Your task to perform on an android device: see sites visited before in the chrome app Image 0: 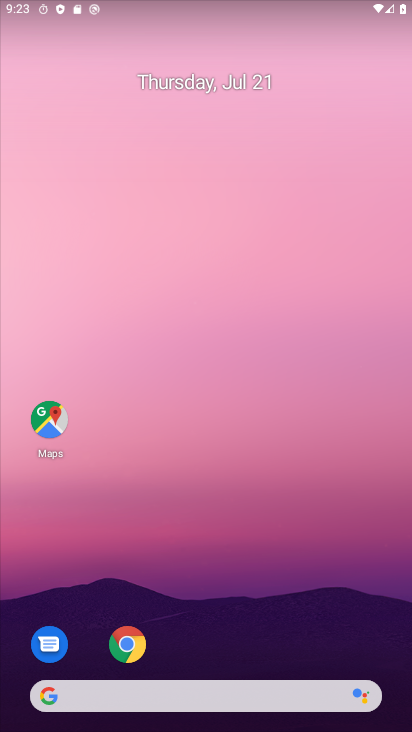
Step 0: drag from (246, 216) to (248, 92)
Your task to perform on an android device: see sites visited before in the chrome app Image 1: 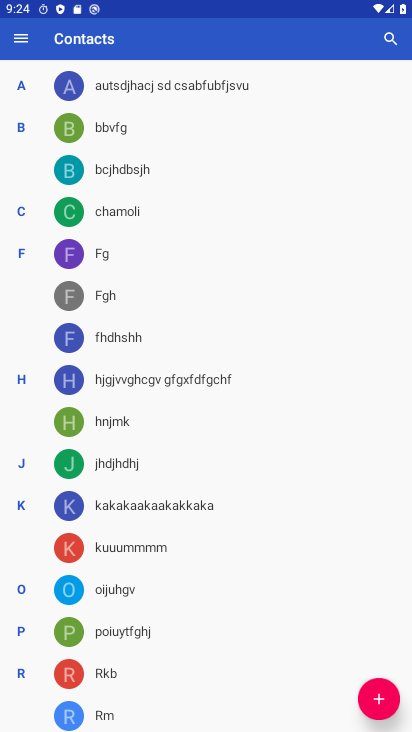
Step 1: press back button
Your task to perform on an android device: see sites visited before in the chrome app Image 2: 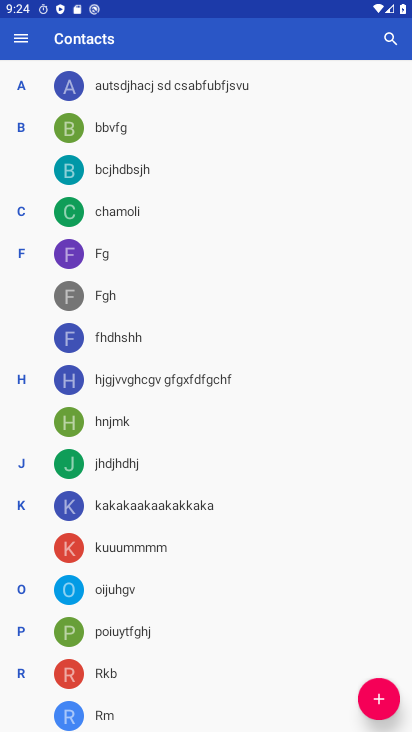
Step 2: press back button
Your task to perform on an android device: see sites visited before in the chrome app Image 3: 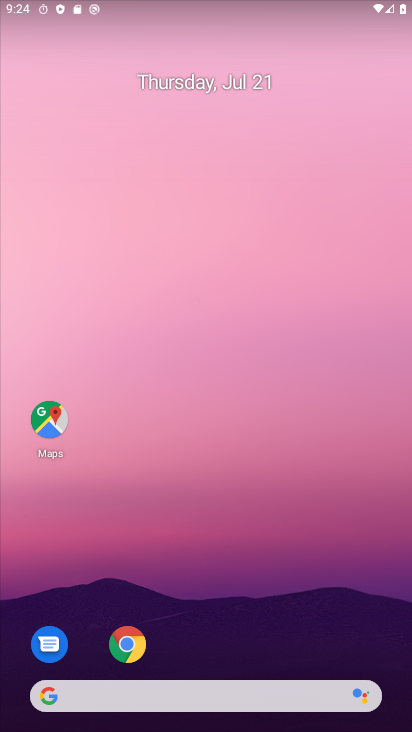
Step 3: drag from (231, 704) to (197, 166)
Your task to perform on an android device: see sites visited before in the chrome app Image 4: 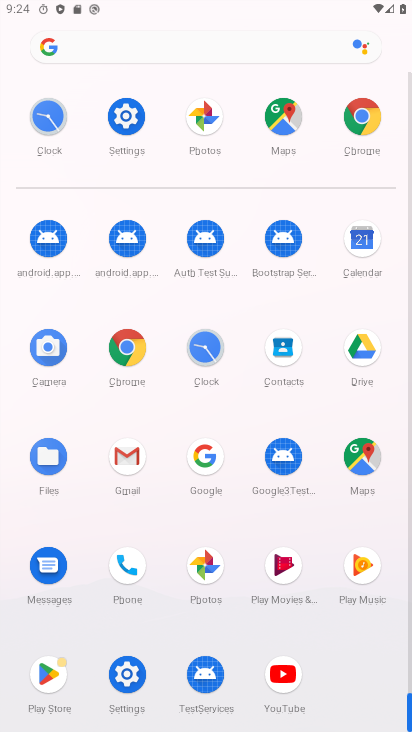
Step 4: click (363, 122)
Your task to perform on an android device: see sites visited before in the chrome app Image 5: 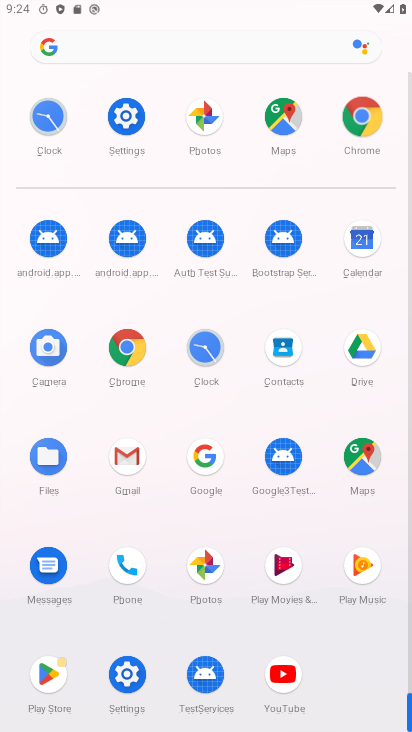
Step 5: click (367, 122)
Your task to perform on an android device: see sites visited before in the chrome app Image 6: 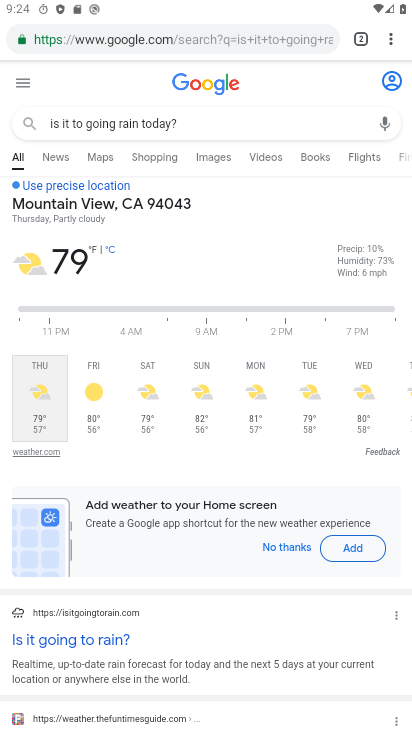
Step 6: drag from (388, 34) to (243, 182)
Your task to perform on an android device: see sites visited before in the chrome app Image 7: 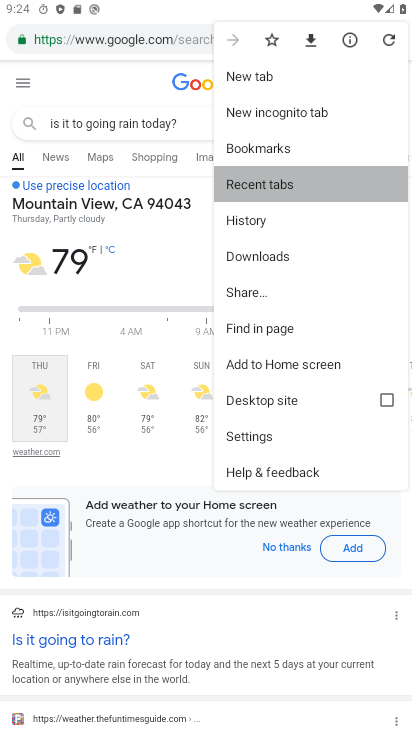
Step 7: click (240, 186)
Your task to perform on an android device: see sites visited before in the chrome app Image 8: 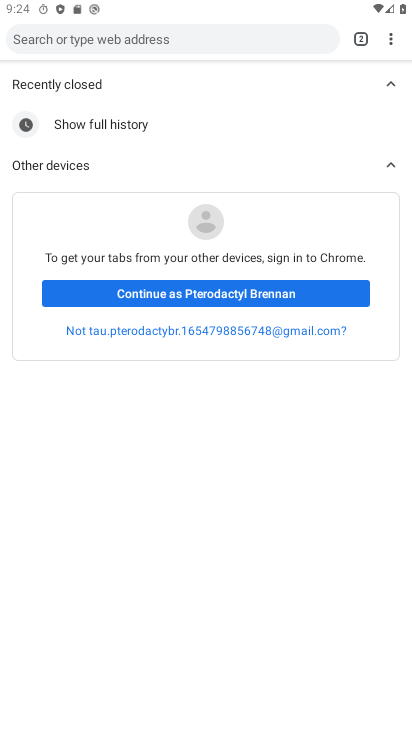
Step 8: task complete